Your task to perform on an android device: Open network settings Image 0: 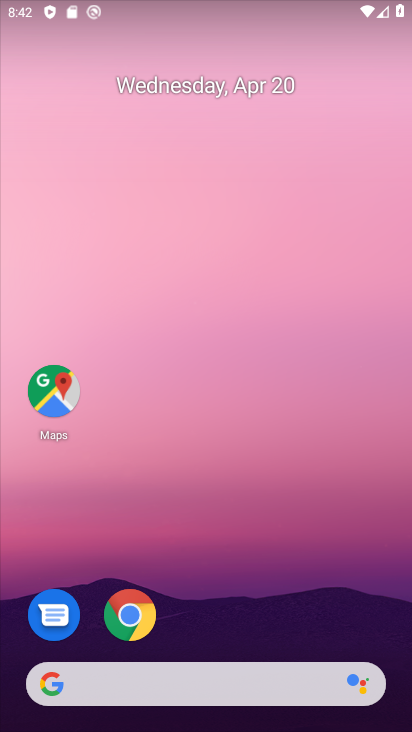
Step 0: drag from (270, 385) to (273, 249)
Your task to perform on an android device: Open network settings Image 1: 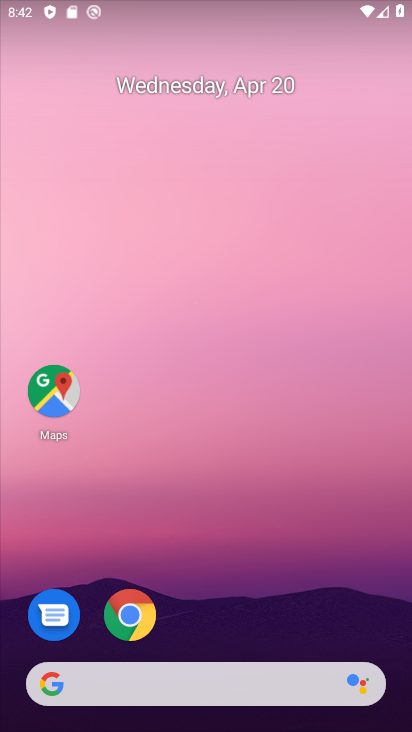
Step 1: drag from (256, 656) to (325, 186)
Your task to perform on an android device: Open network settings Image 2: 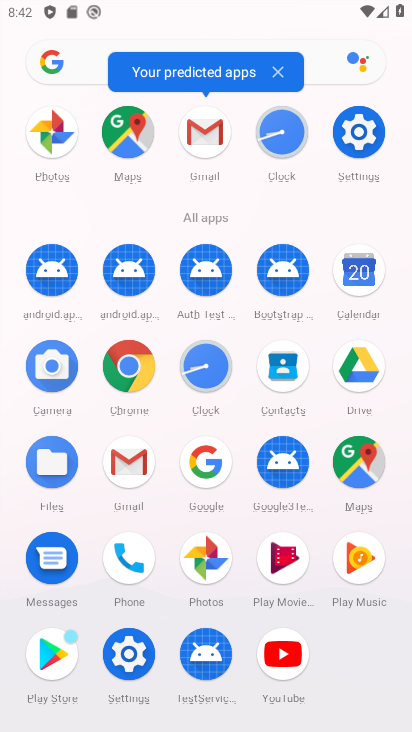
Step 2: click (136, 659)
Your task to perform on an android device: Open network settings Image 3: 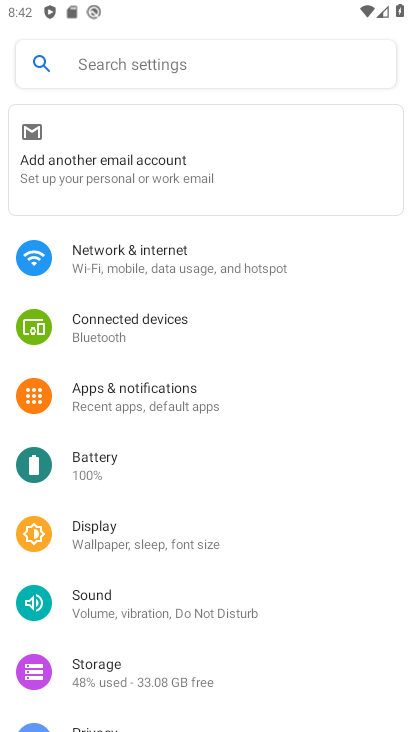
Step 3: click (163, 248)
Your task to perform on an android device: Open network settings Image 4: 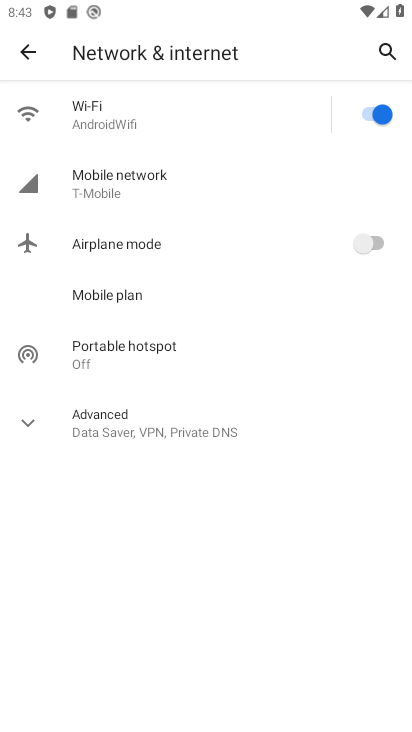
Step 4: click (185, 164)
Your task to perform on an android device: Open network settings Image 5: 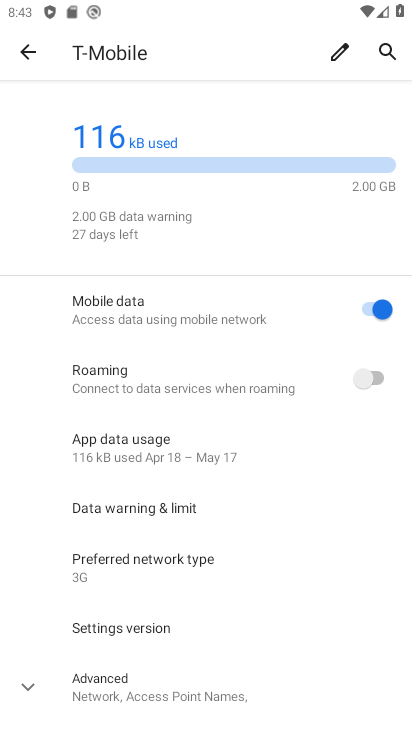
Step 5: task complete